Your task to perform on an android device: empty trash in the gmail app Image 0: 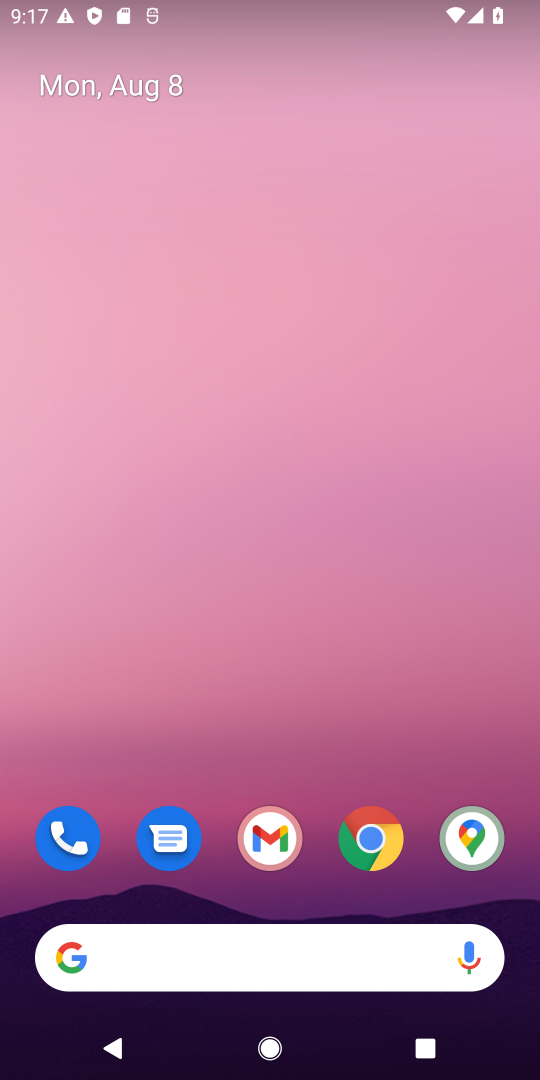
Step 0: press home button
Your task to perform on an android device: empty trash in the gmail app Image 1: 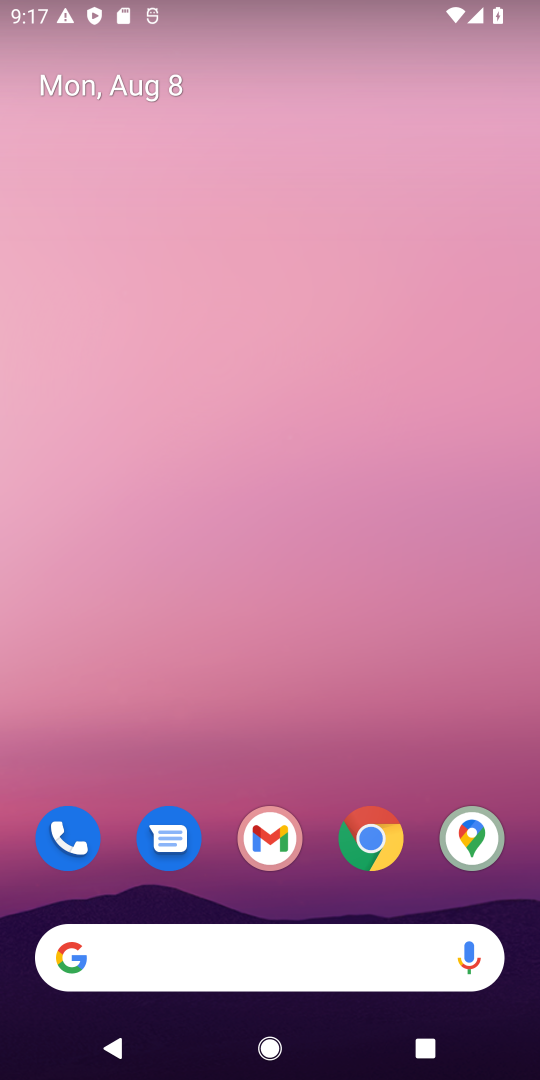
Step 1: click (273, 839)
Your task to perform on an android device: empty trash in the gmail app Image 2: 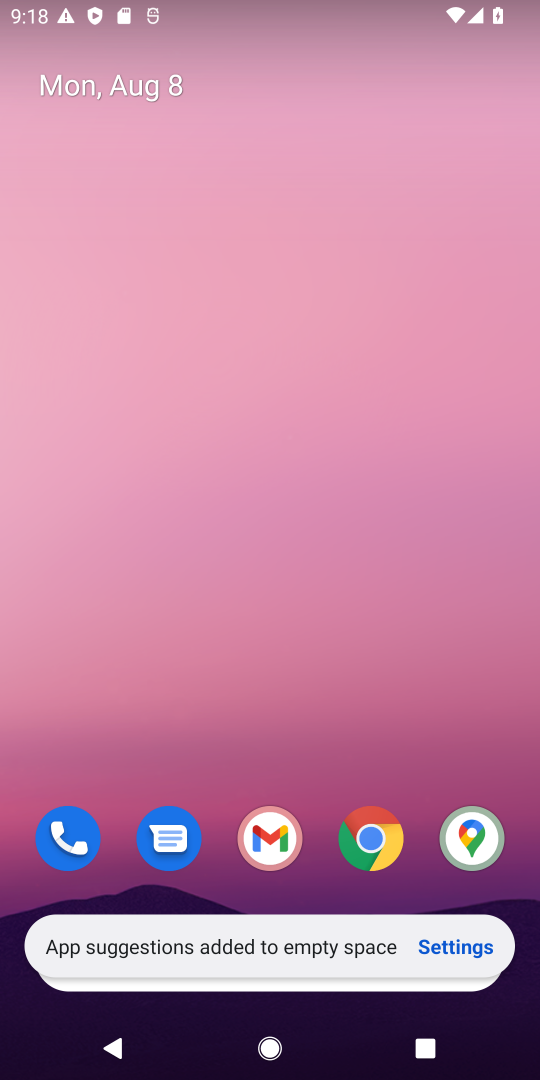
Step 2: click (275, 839)
Your task to perform on an android device: empty trash in the gmail app Image 3: 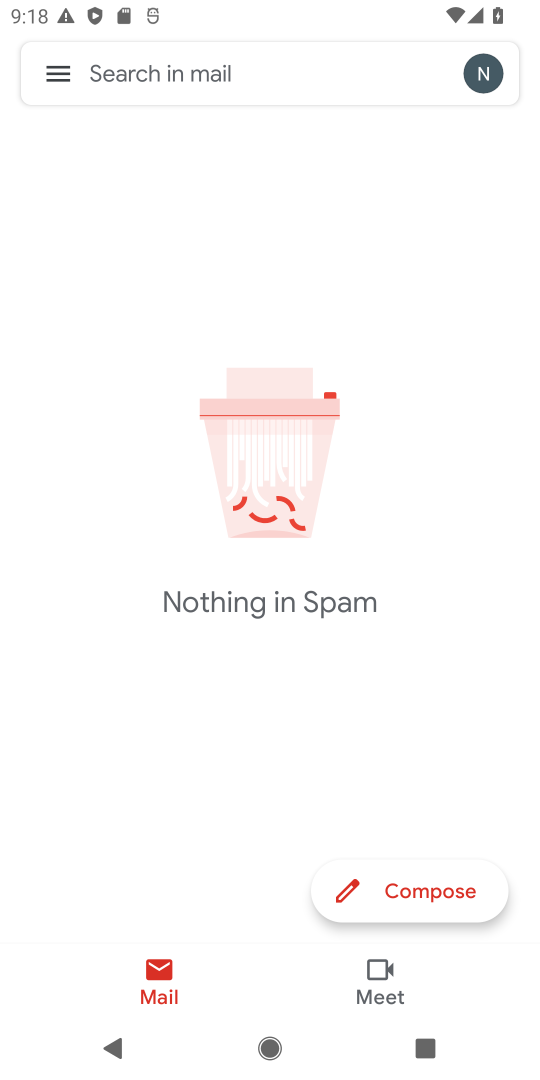
Step 3: click (55, 69)
Your task to perform on an android device: empty trash in the gmail app Image 4: 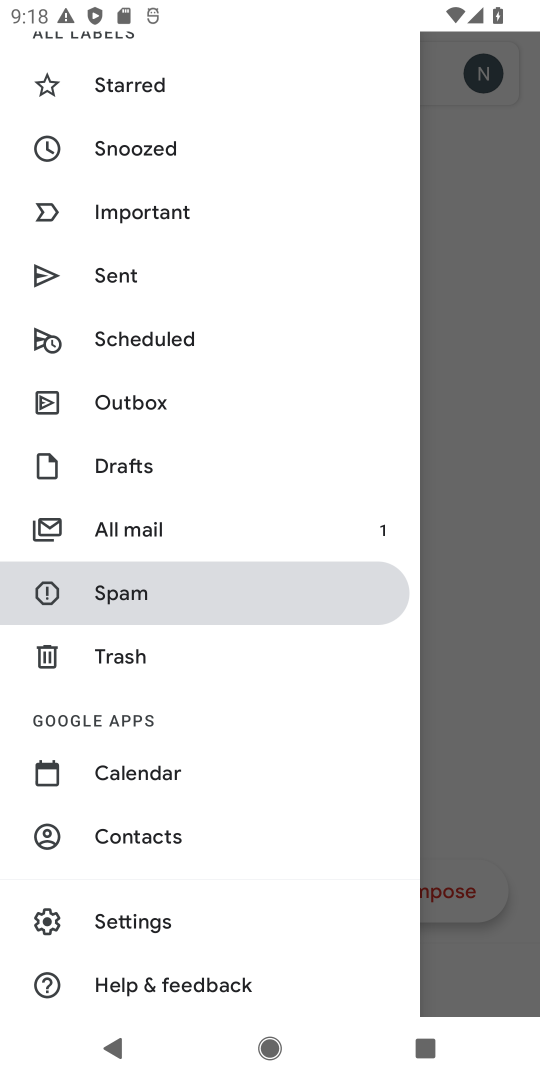
Step 4: click (95, 662)
Your task to perform on an android device: empty trash in the gmail app Image 5: 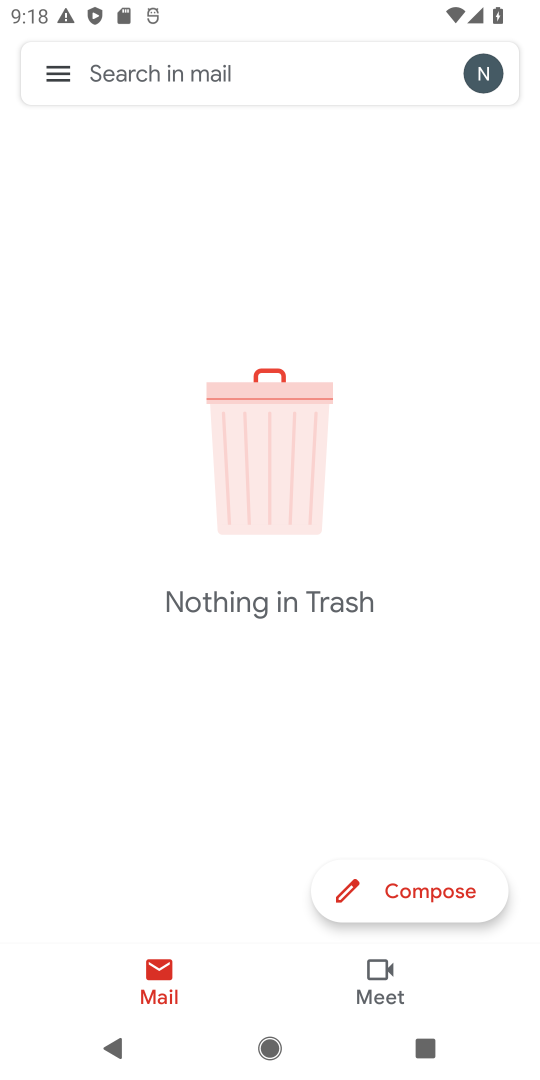
Step 5: task complete